Your task to perform on an android device: Open Youtube and go to "Your channel" Image 0: 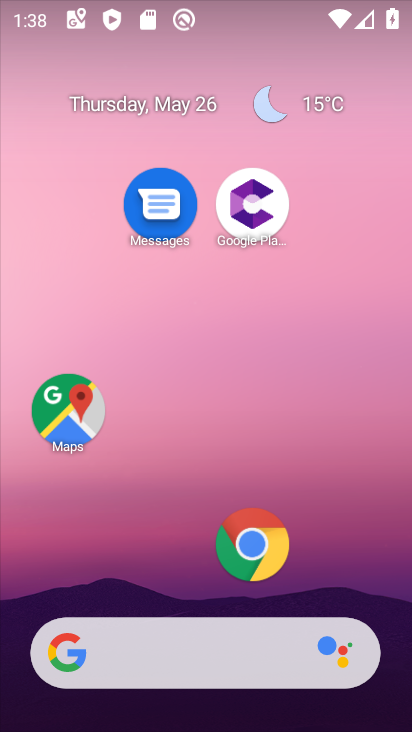
Step 0: drag from (130, 559) to (168, 35)
Your task to perform on an android device: Open Youtube and go to "Your channel" Image 1: 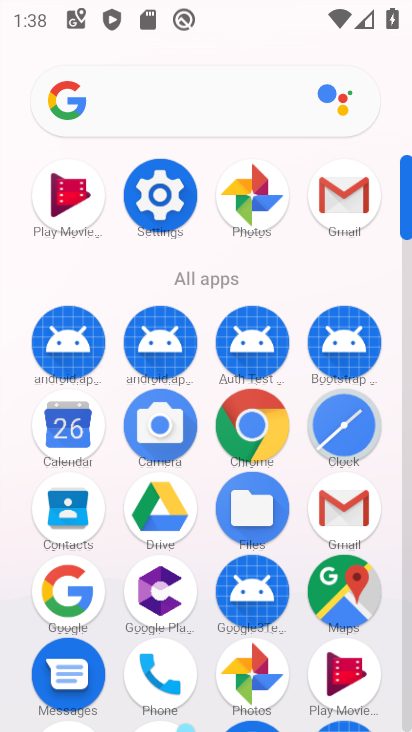
Step 1: drag from (204, 646) to (223, 273)
Your task to perform on an android device: Open Youtube and go to "Your channel" Image 2: 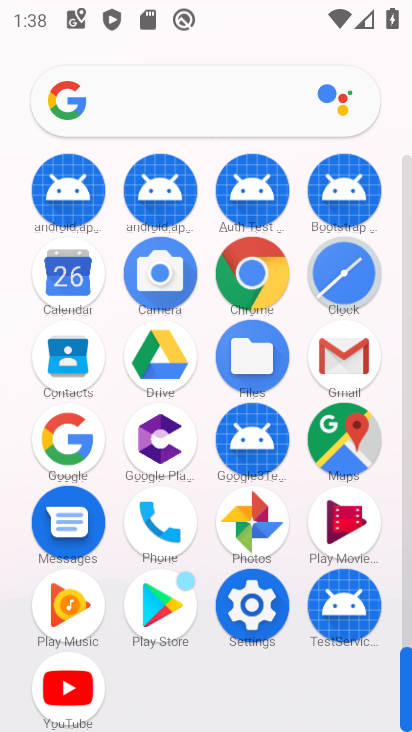
Step 2: click (64, 681)
Your task to perform on an android device: Open Youtube and go to "Your channel" Image 3: 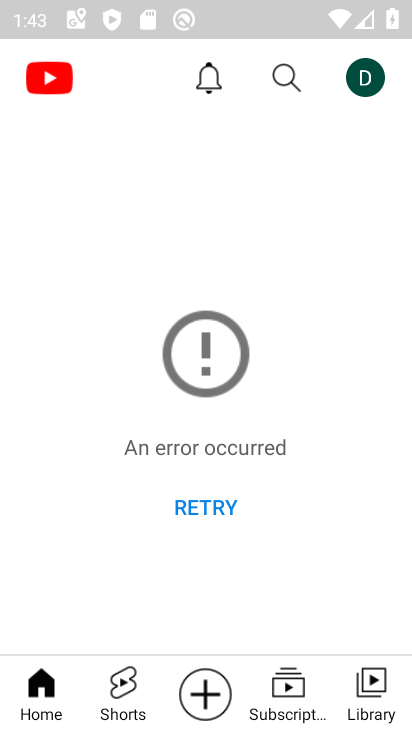
Step 3: click (285, 65)
Your task to perform on an android device: Open Youtube and go to "Your channel" Image 4: 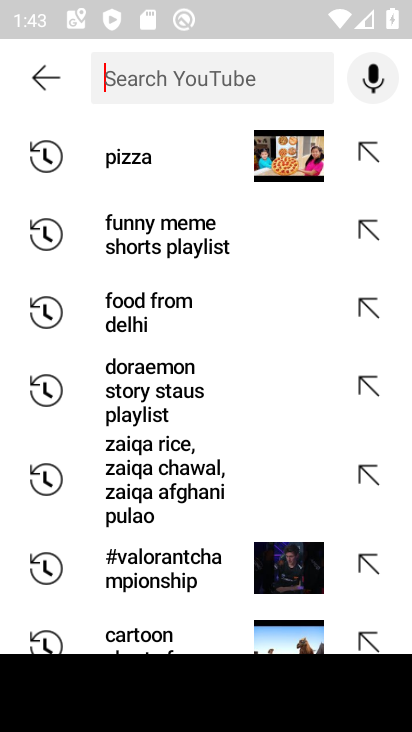
Step 4: task complete